Your task to perform on an android device: Set the phone to "Do not disturb". Image 0: 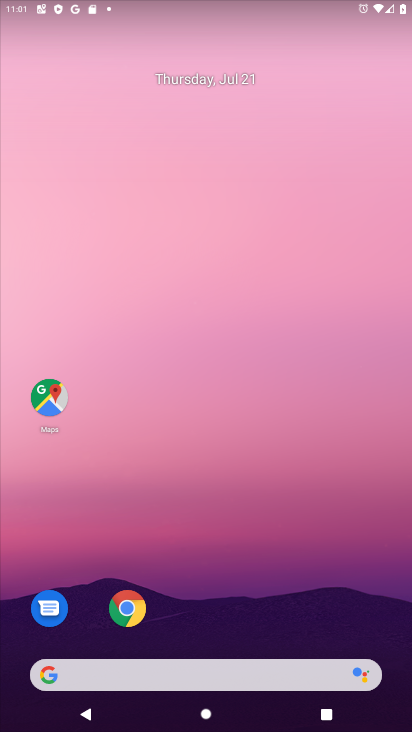
Step 0: drag from (362, 622) to (209, 100)
Your task to perform on an android device: Set the phone to "Do not disturb". Image 1: 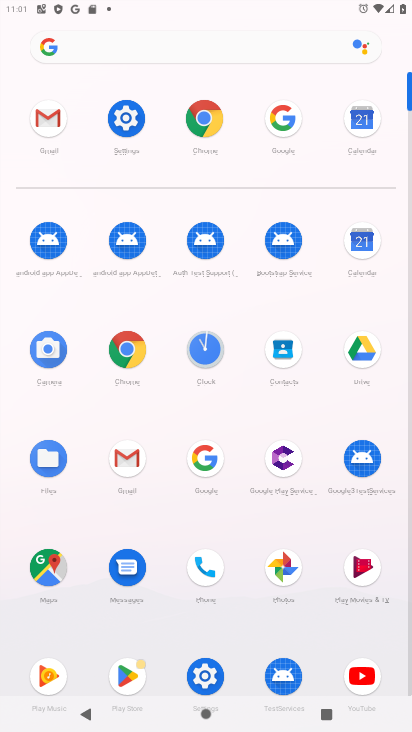
Step 1: drag from (153, 3) to (263, 556)
Your task to perform on an android device: Set the phone to "Do not disturb". Image 2: 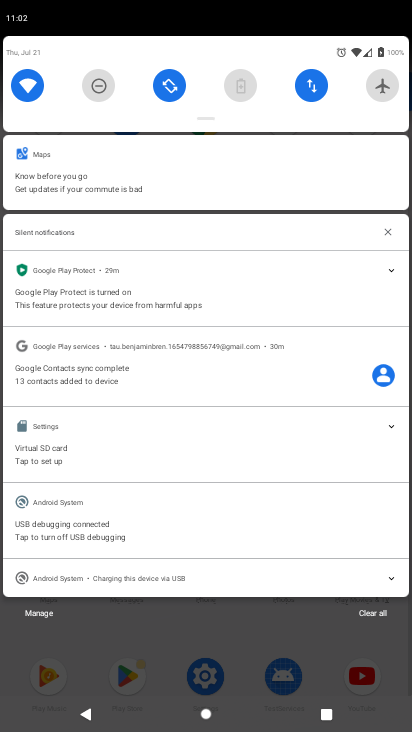
Step 2: click (106, 87)
Your task to perform on an android device: Set the phone to "Do not disturb". Image 3: 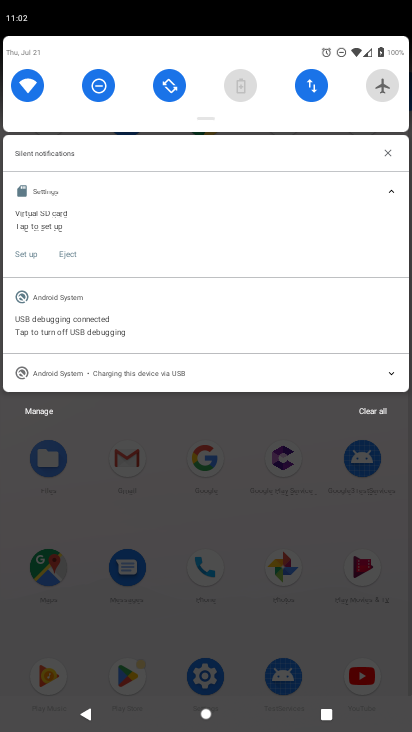
Step 3: task complete